Your task to perform on an android device: Open the stopwatch Image 0: 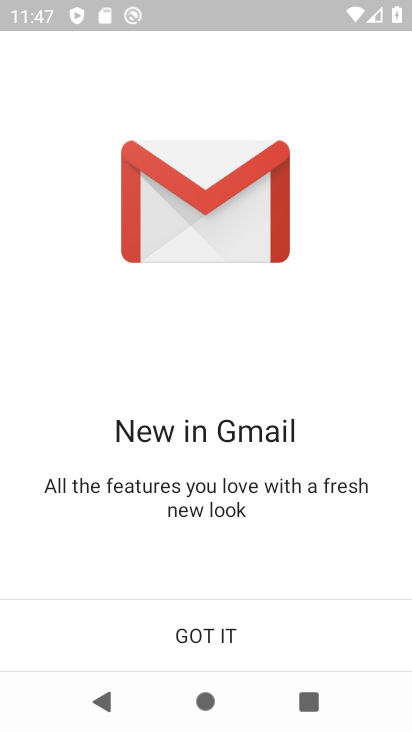
Step 0: press home button
Your task to perform on an android device: Open the stopwatch Image 1: 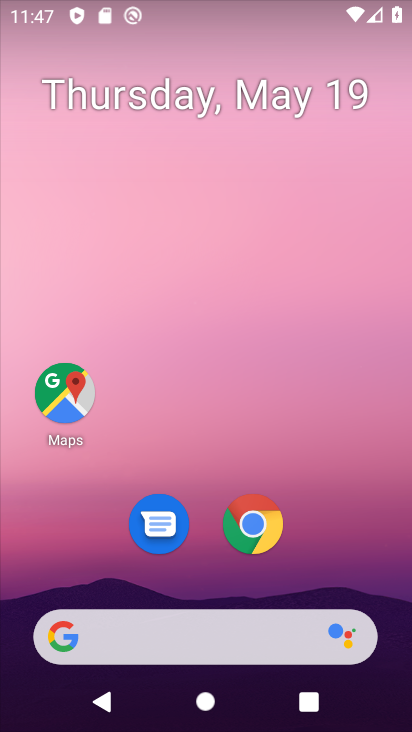
Step 1: drag from (195, 449) to (239, 48)
Your task to perform on an android device: Open the stopwatch Image 2: 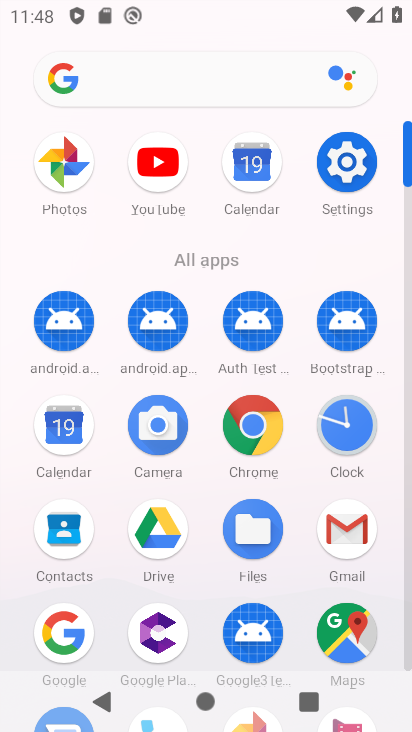
Step 2: click (347, 426)
Your task to perform on an android device: Open the stopwatch Image 3: 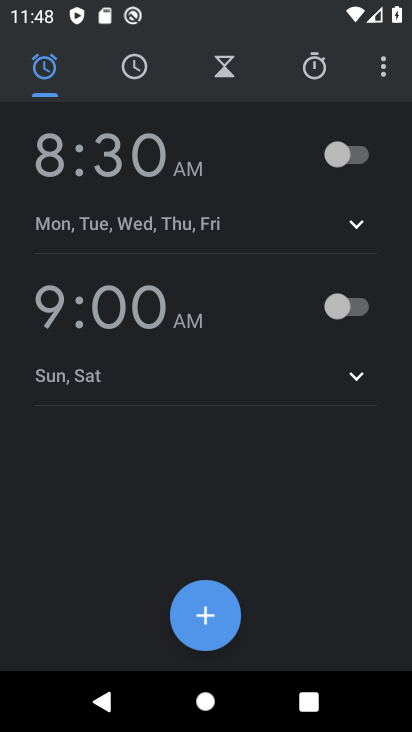
Step 3: click (313, 64)
Your task to perform on an android device: Open the stopwatch Image 4: 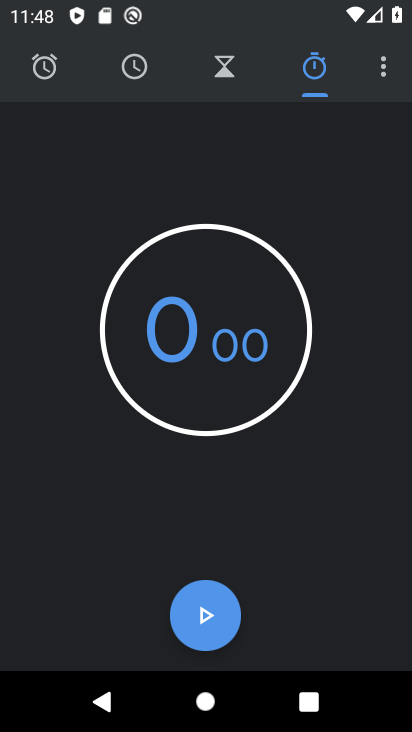
Step 4: task complete